Your task to perform on an android device: turn on bluetooth scan Image 0: 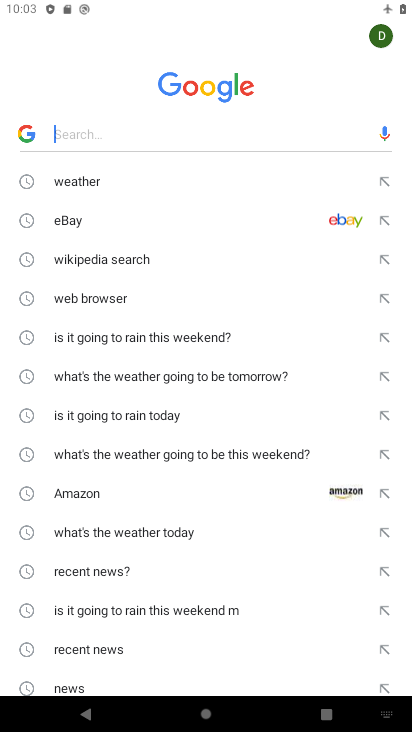
Step 0: press home button
Your task to perform on an android device: turn on bluetooth scan Image 1: 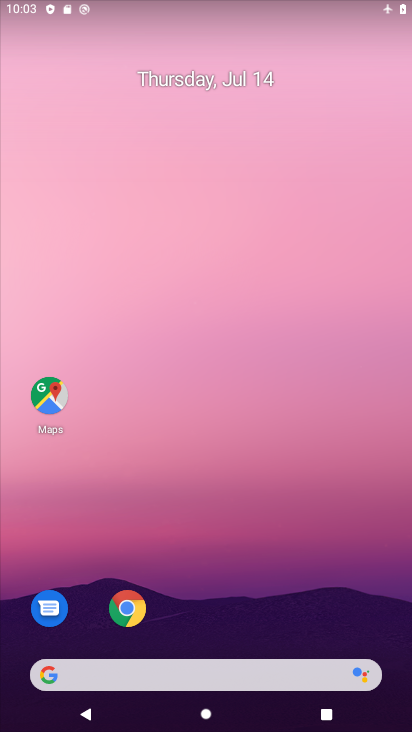
Step 1: drag from (224, 588) to (158, 0)
Your task to perform on an android device: turn on bluetooth scan Image 2: 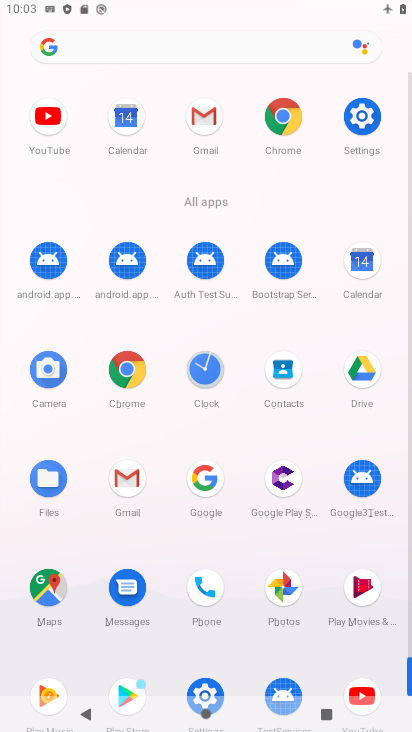
Step 2: click (361, 138)
Your task to perform on an android device: turn on bluetooth scan Image 3: 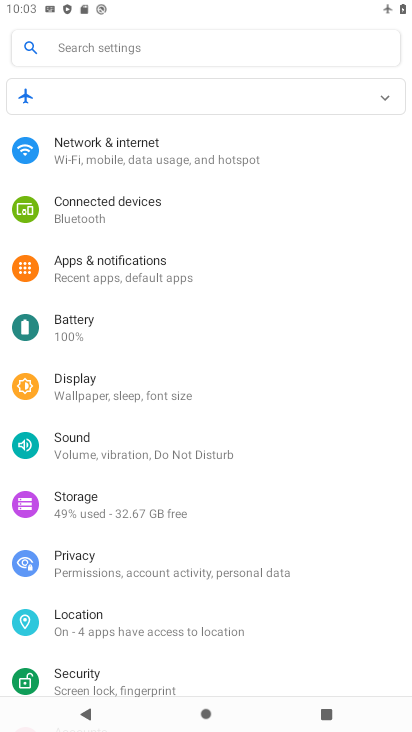
Step 3: click (99, 630)
Your task to perform on an android device: turn on bluetooth scan Image 4: 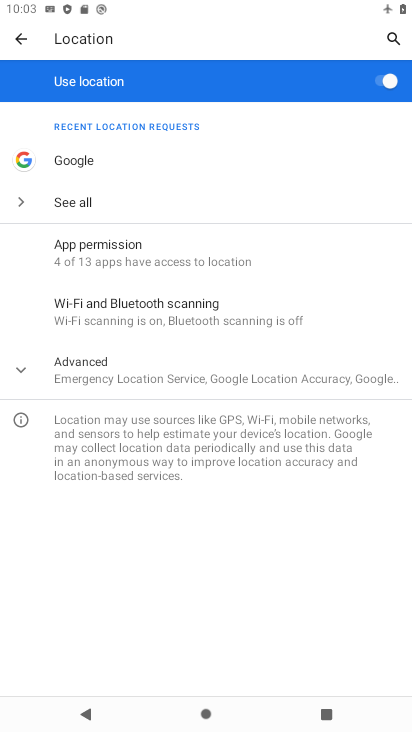
Step 4: click (158, 323)
Your task to perform on an android device: turn on bluetooth scan Image 5: 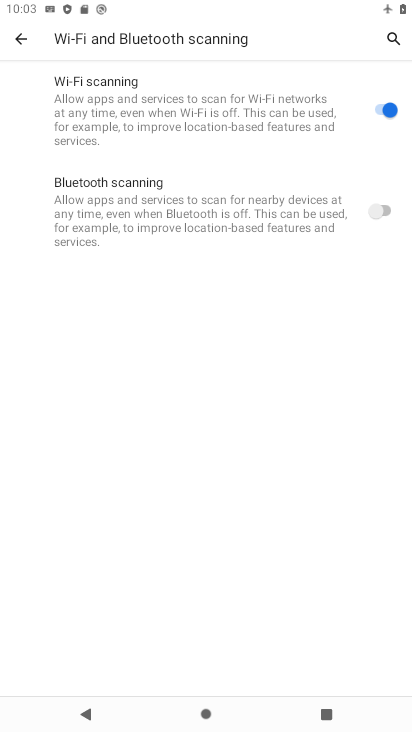
Step 5: click (394, 220)
Your task to perform on an android device: turn on bluetooth scan Image 6: 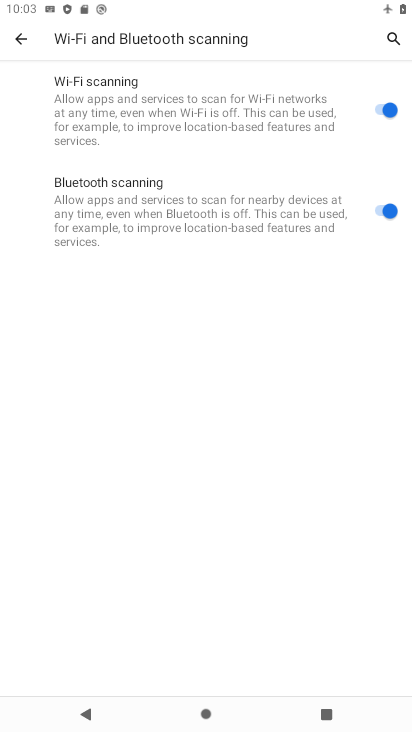
Step 6: task complete